Your task to perform on an android device: change the clock display to digital Image 0: 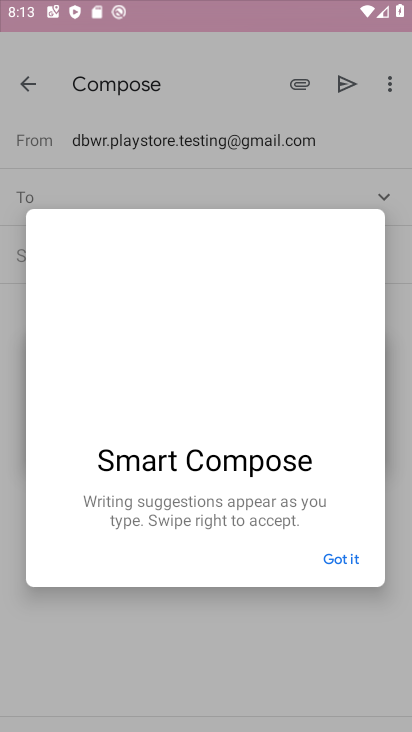
Step 0: click (311, 213)
Your task to perform on an android device: change the clock display to digital Image 1: 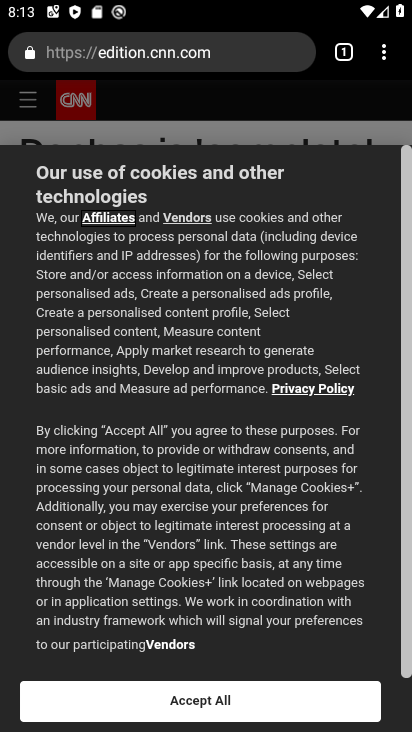
Step 1: press home button
Your task to perform on an android device: change the clock display to digital Image 2: 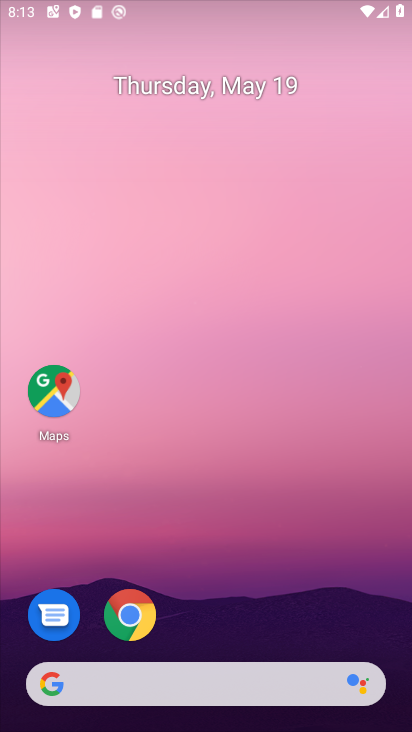
Step 2: drag from (232, 626) to (282, 174)
Your task to perform on an android device: change the clock display to digital Image 3: 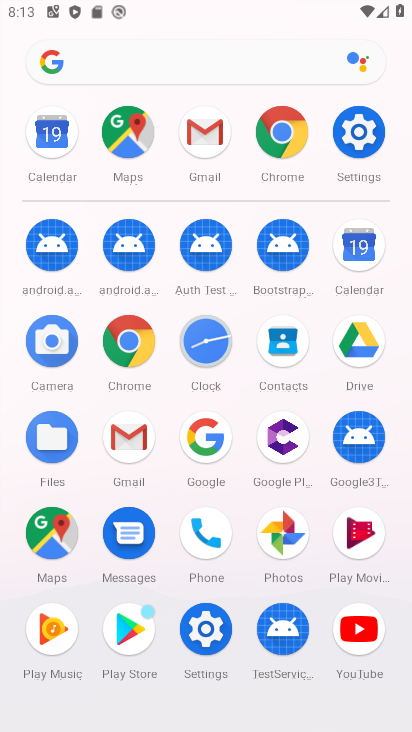
Step 3: click (212, 341)
Your task to perform on an android device: change the clock display to digital Image 4: 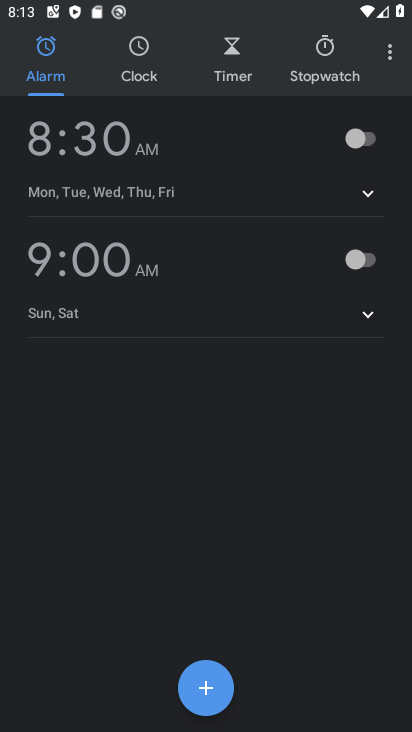
Step 4: click (391, 59)
Your task to perform on an android device: change the clock display to digital Image 5: 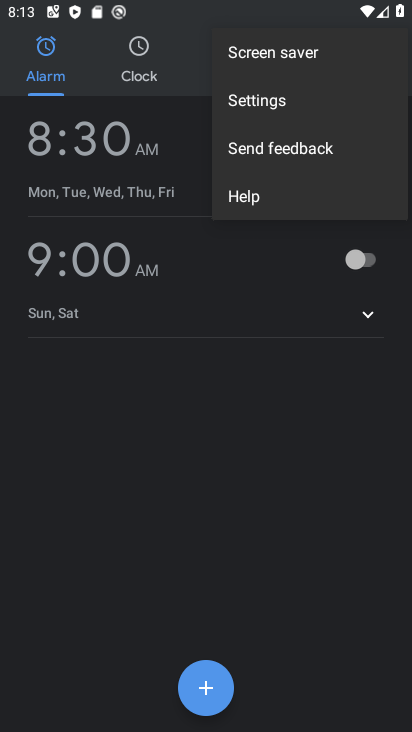
Step 5: click (284, 102)
Your task to perform on an android device: change the clock display to digital Image 6: 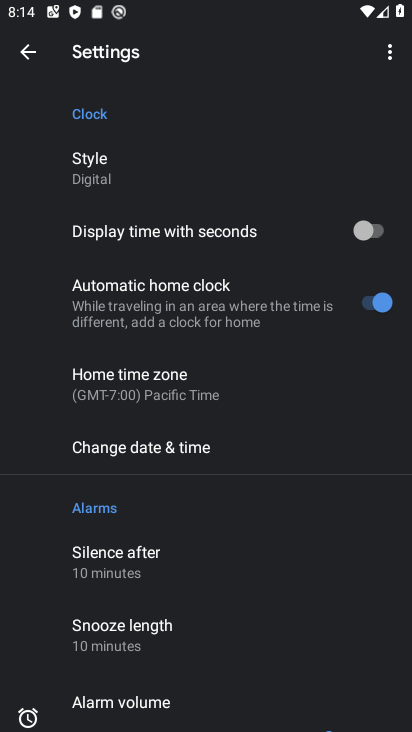
Step 6: task complete